Your task to perform on an android device: turn on improve location accuracy Image 0: 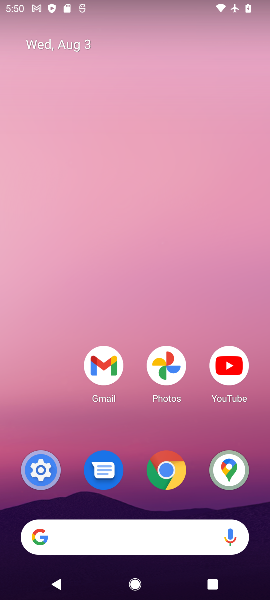
Step 0: drag from (203, 396) to (231, 123)
Your task to perform on an android device: turn on improve location accuracy Image 1: 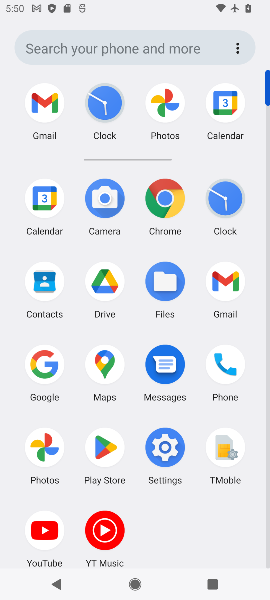
Step 1: click (165, 451)
Your task to perform on an android device: turn on improve location accuracy Image 2: 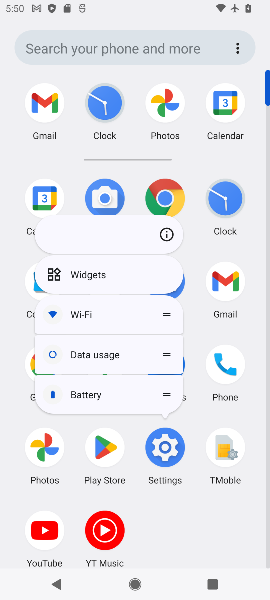
Step 2: click (167, 444)
Your task to perform on an android device: turn on improve location accuracy Image 3: 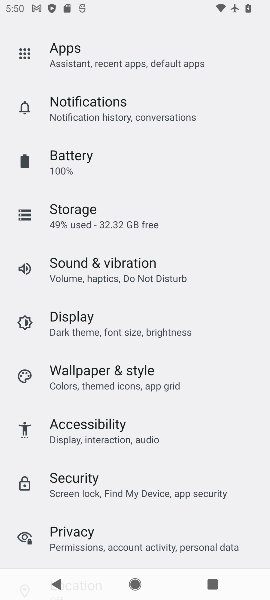
Step 3: drag from (199, 134) to (167, 456)
Your task to perform on an android device: turn on improve location accuracy Image 4: 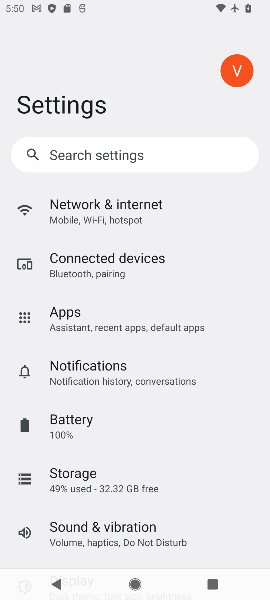
Step 4: drag from (178, 424) to (229, 192)
Your task to perform on an android device: turn on improve location accuracy Image 5: 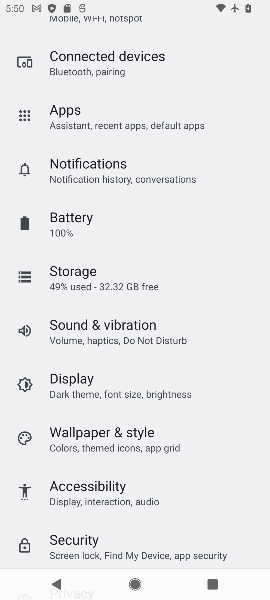
Step 5: drag from (173, 501) to (211, 256)
Your task to perform on an android device: turn on improve location accuracy Image 6: 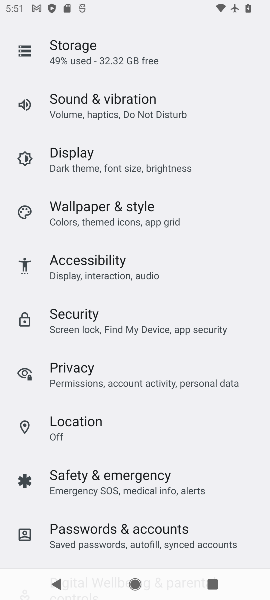
Step 6: click (95, 372)
Your task to perform on an android device: turn on improve location accuracy Image 7: 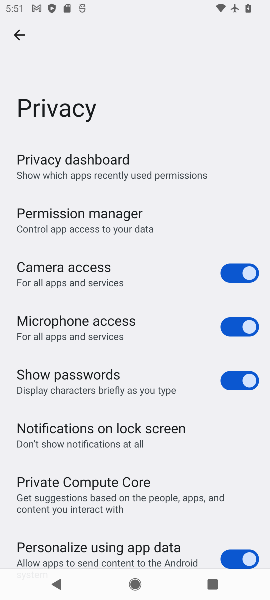
Step 7: drag from (140, 491) to (236, 142)
Your task to perform on an android device: turn on improve location accuracy Image 8: 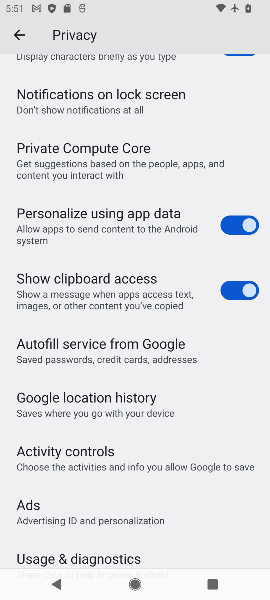
Step 8: drag from (129, 329) to (215, 151)
Your task to perform on an android device: turn on improve location accuracy Image 9: 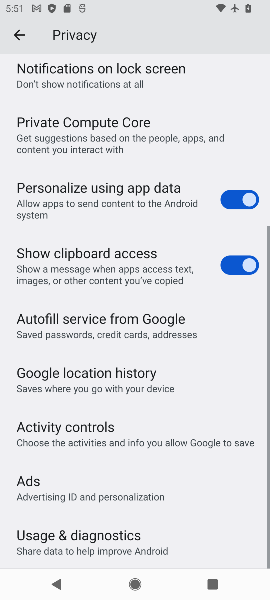
Step 9: click (115, 491)
Your task to perform on an android device: turn on improve location accuracy Image 10: 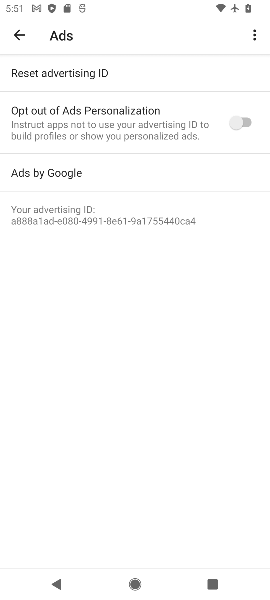
Step 10: click (24, 38)
Your task to perform on an android device: turn on improve location accuracy Image 11: 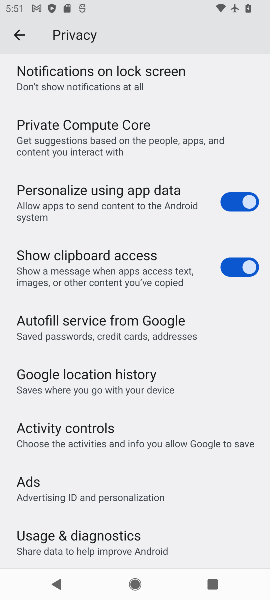
Step 11: drag from (239, 88) to (188, 556)
Your task to perform on an android device: turn on improve location accuracy Image 12: 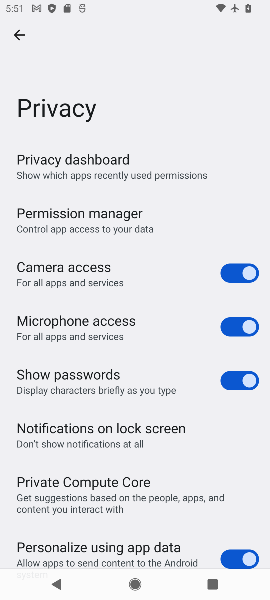
Step 12: click (21, 33)
Your task to perform on an android device: turn on improve location accuracy Image 13: 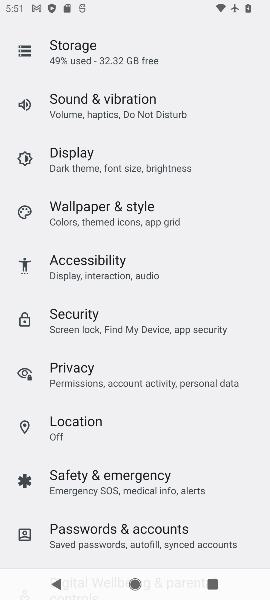
Step 13: click (114, 424)
Your task to perform on an android device: turn on improve location accuracy Image 14: 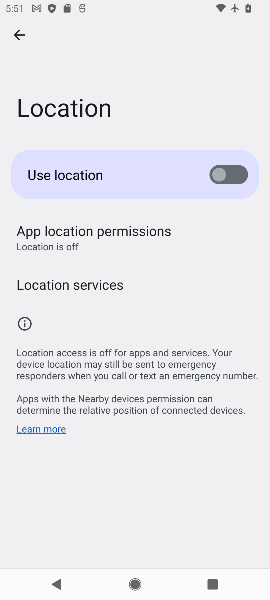
Step 14: task complete